Your task to perform on an android device: Search for seafood restaurants on Google Maps Image 0: 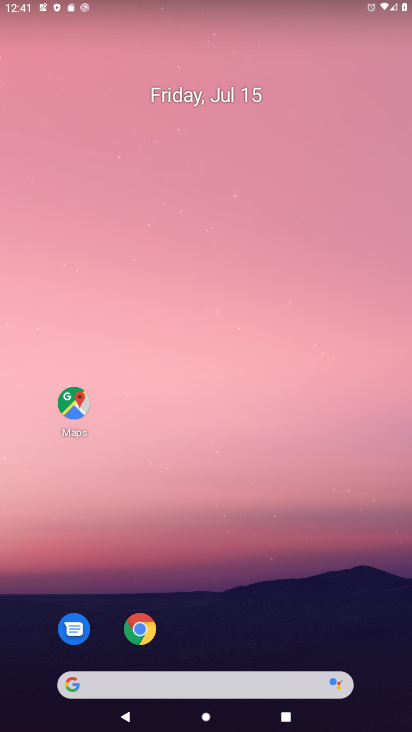
Step 0: press home button
Your task to perform on an android device: Search for seafood restaurants on Google Maps Image 1: 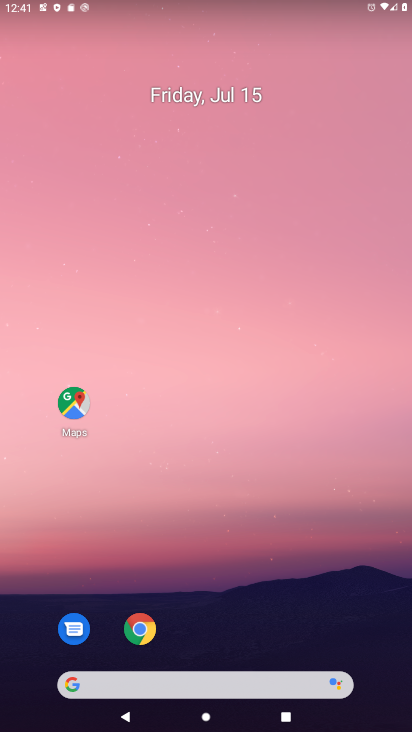
Step 1: drag from (214, 643) to (166, 67)
Your task to perform on an android device: Search for seafood restaurants on Google Maps Image 2: 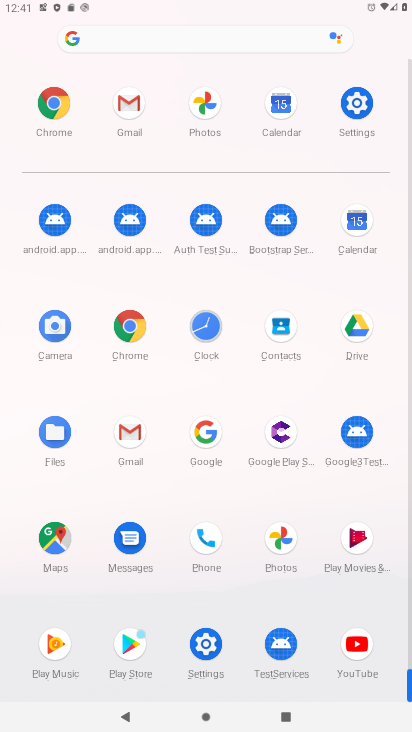
Step 2: click (51, 550)
Your task to perform on an android device: Search for seafood restaurants on Google Maps Image 3: 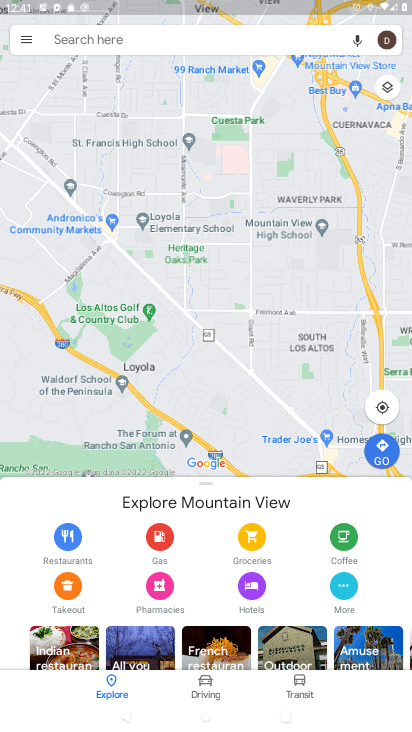
Step 3: click (128, 46)
Your task to perform on an android device: Search for seafood restaurants on Google Maps Image 4: 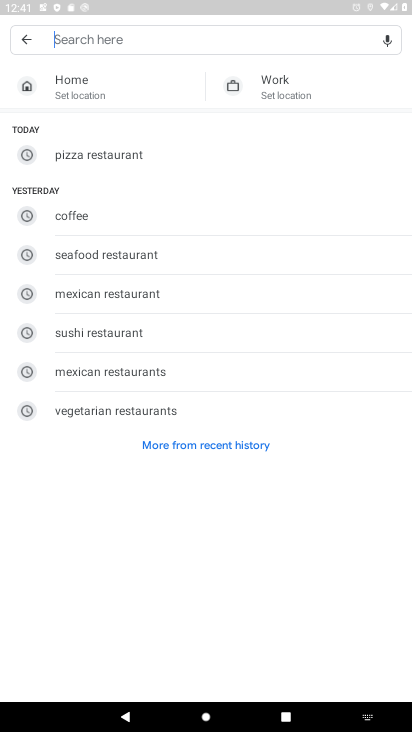
Step 4: click (98, 257)
Your task to perform on an android device: Search for seafood restaurants on Google Maps Image 5: 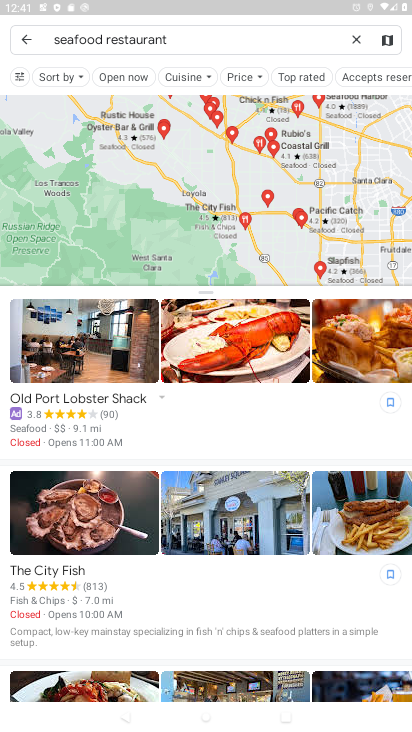
Step 5: task complete